Your task to perform on an android device: stop showing notifications on the lock screen Image 0: 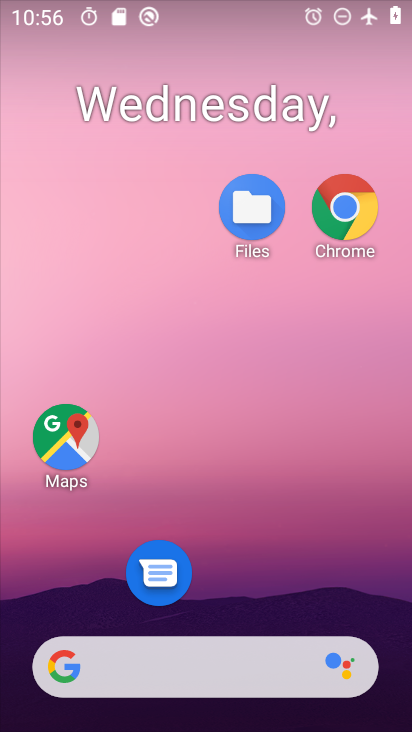
Step 0: drag from (283, 624) to (245, 242)
Your task to perform on an android device: stop showing notifications on the lock screen Image 1: 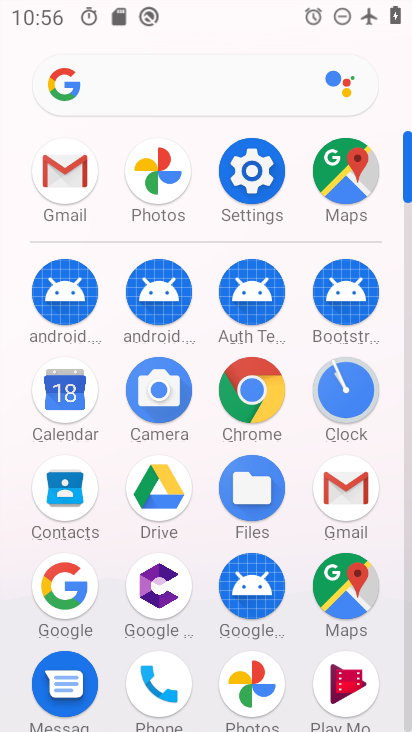
Step 1: click (250, 198)
Your task to perform on an android device: stop showing notifications on the lock screen Image 2: 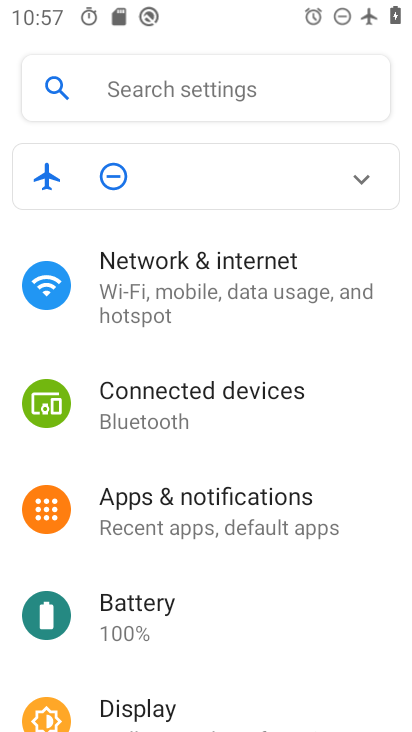
Step 2: click (232, 512)
Your task to perform on an android device: stop showing notifications on the lock screen Image 3: 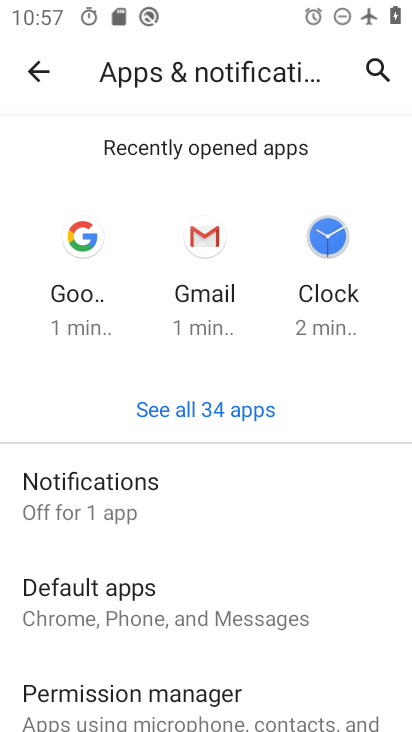
Step 3: click (194, 500)
Your task to perform on an android device: stop showing notifications on the lock screen Image 4: 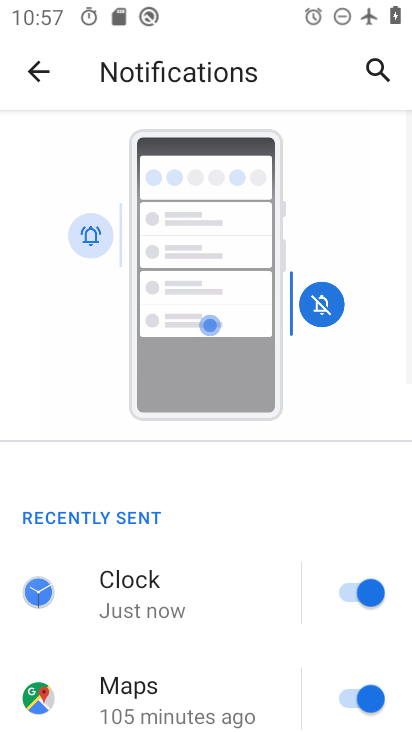
Step 4: drag from (224, 619) to (226, 299)
Your task to perform on an android device: stop showing notifications on the lock screen Image 5: 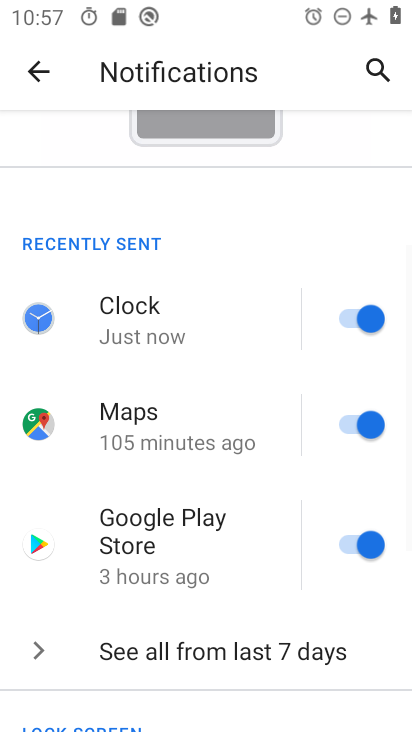
Step 5: drag from (185, 624) to (226, 244)
Your task to perform on an android device: stop showing notifications on the lock screen Image 6: 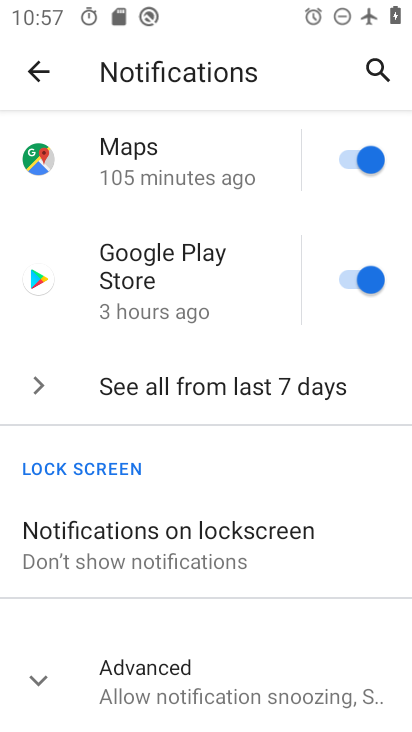
Step 6: click (211, 554)
Your task to perform on an android device: stop showing notifications on the lock screen Image 7: 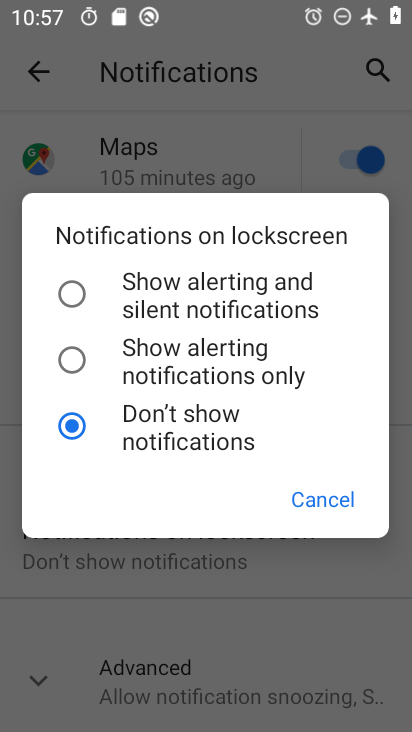
Step 7: task complete